Your task to perform on an android device: Go to accessibility settings Image 0: 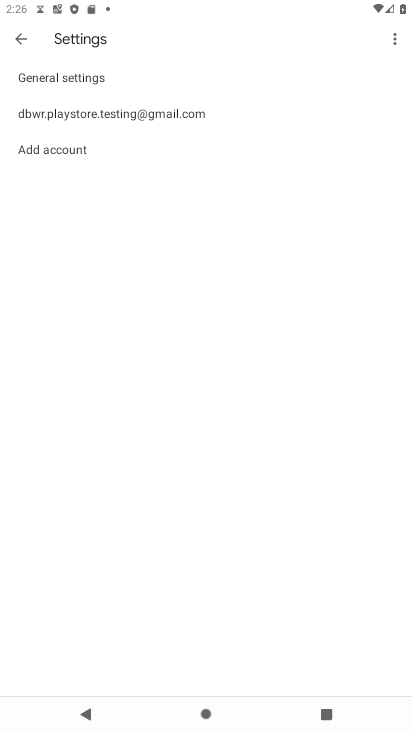
Step 0: press home button
Your task to perform on an android device: Go to accessibility settings Image 1: 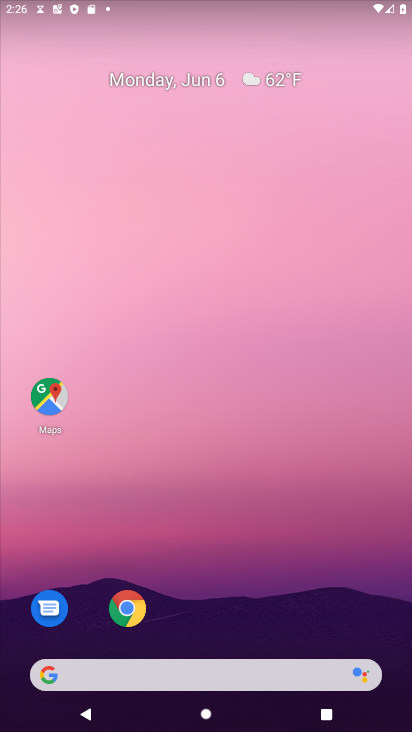
Step 1: drag from (230, 576) to (295, 6)
Your task to perform on an android device: Go to accessibility settings Image 2: 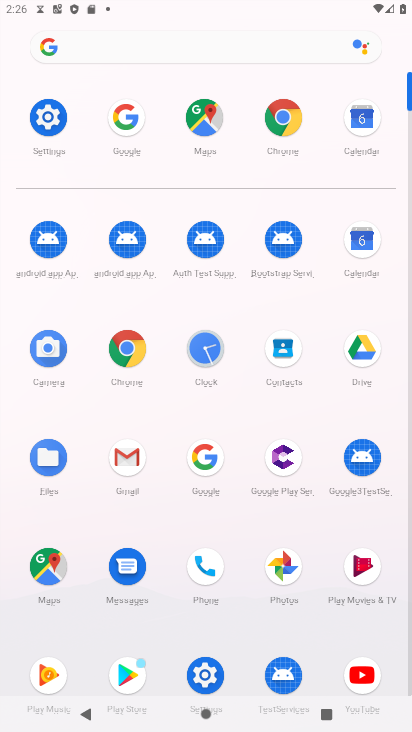
Step 2: click (49, 128)
Your task to perform on an android device: Go to accessibility settings Image 3: 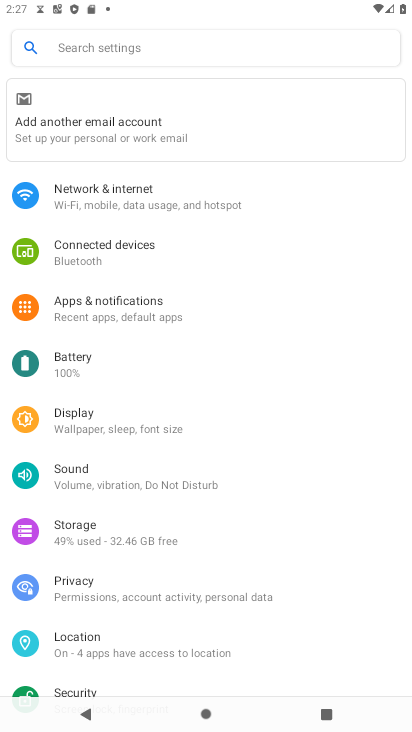
Step 3: drag from (136, 608) to (195, 132)
Your task to perform on an android device: Go to accessibility settings Image 4: 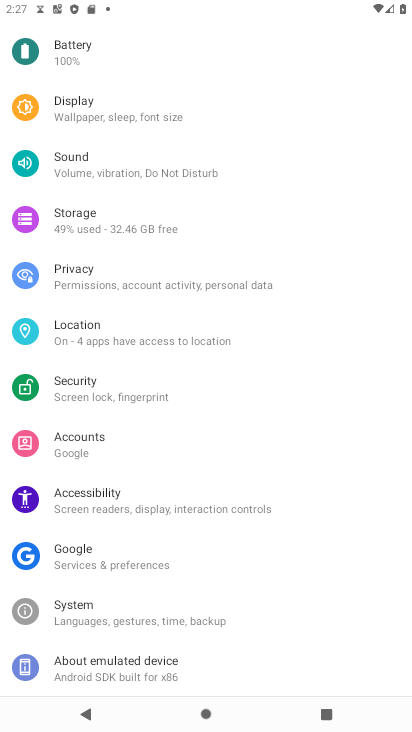
Step 4: click (85, 505)
Your task to perform on an android device: Go to accessibility settings Image 5: 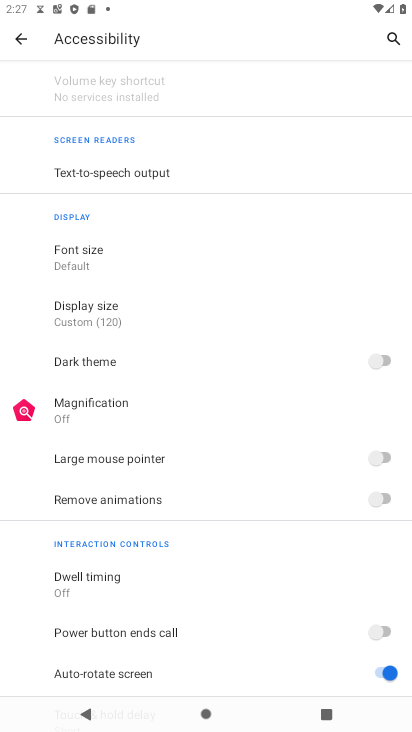
Step 5: task complete